Your task to perform on an android device: Turn on the flashlight Image 0: 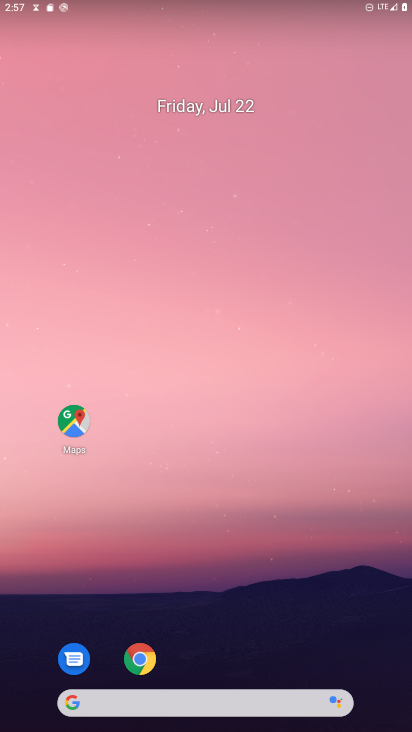
Step 0: drag from (306, 627) to (266, 2)
Your task to perform on an android device: Turn on the flashlight Image 1: 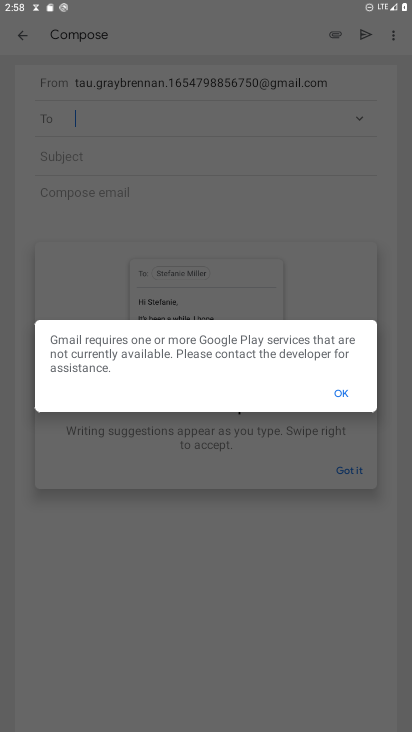
Step 1: press home button
Your task to perform on an android device: Turn on the flashlight Image 2: 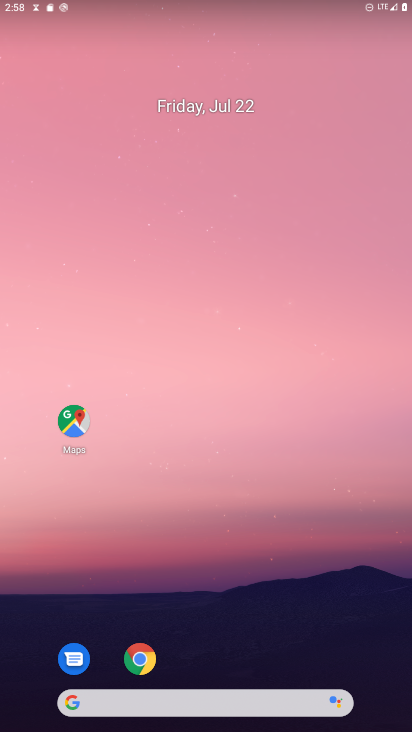
Step 2: drag from (230, 684) to (307, 7)
Your task to perform on an android device: Turn on the flashlight Image 3: 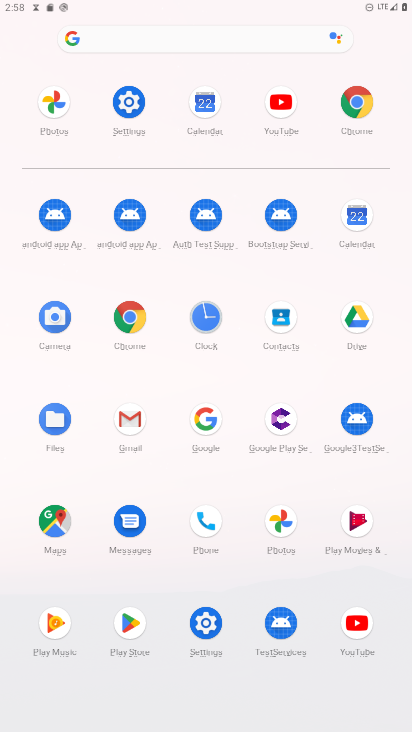
Step 3: click (128, 105)
Your task to perform on an android device: Turn on the flashlight Image 4: 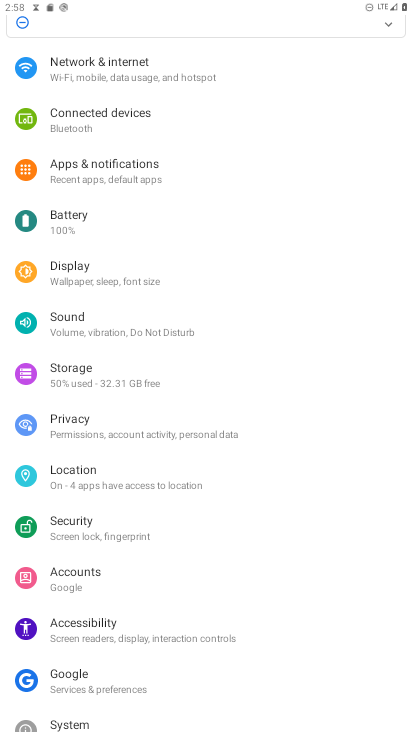
Step 4: task complete